Your task to perform on an android device: uninstall "Firefox Browser" Image 0: 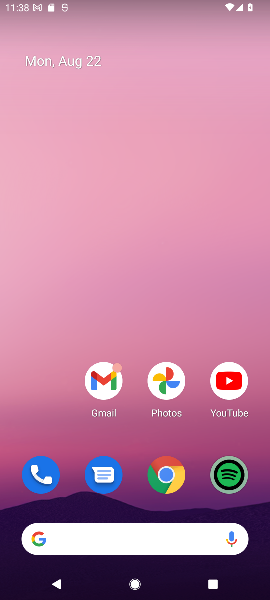
Step 0: drag from (138, 474) to (84, 13)
Your task to perform on an android device: uninstall "Firefox Browser" Image 1: 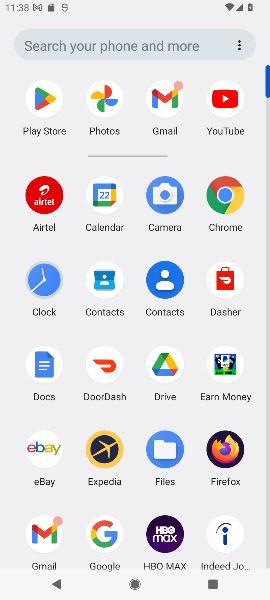
Step 1: click (48, 97)
Your task to perform on an android device: uninstall "Firefox Browser" Image 2: 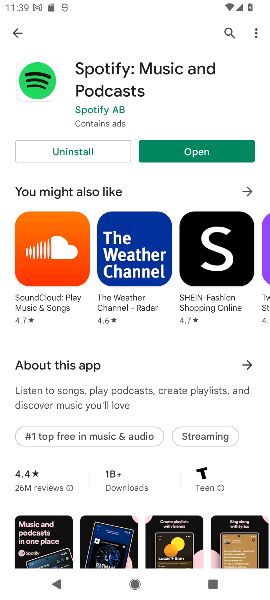
Step 2: click (18, 30)
Your task to perform on an android device: uninstall "Firefox Browser" Image 3: 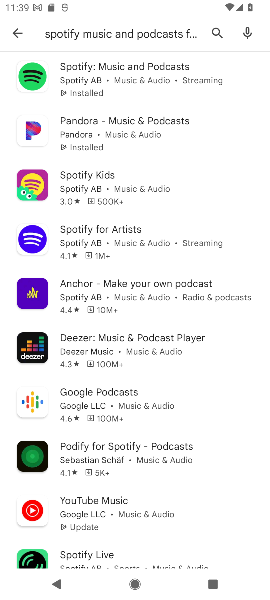
Step 3: click (16, 33)
Your task to perform on an android device: uninstall "Firefox Browser" Image 4: 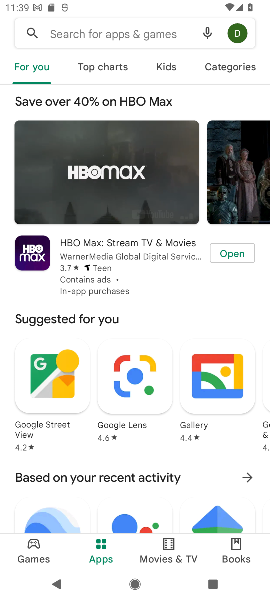
Step 4: click (84, 34)
Your task to perform on an android device: uninstall "Firefox Browser" Image 5: 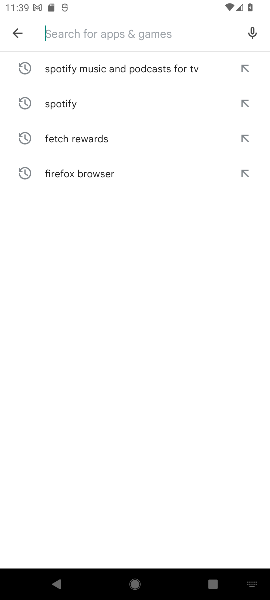
Step 5: type "Firefox Browser"
Your task to perform on an android device: uninstall "Firefox Browser" Image 6: 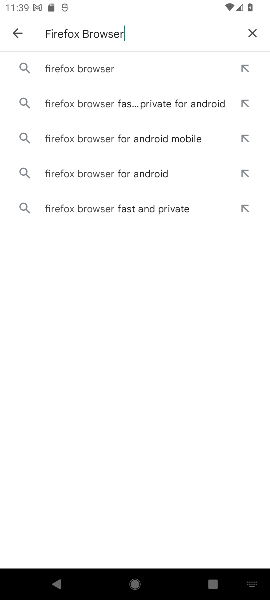
Step 6: click (87, 66)
Your task to perform on an android device: uninstall "Firefox Browser" Image 7: 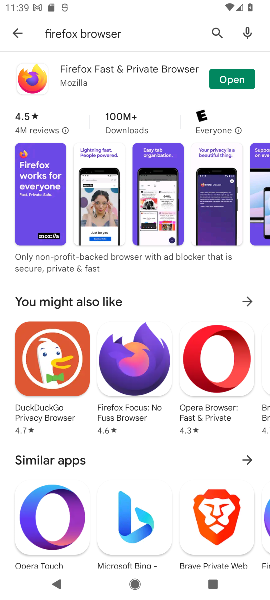
Step 7: click (68, 82)
Your task to perform on an android device: uninstall "Firefox Browser" Image 8: 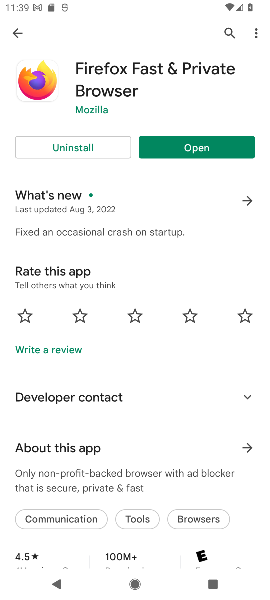
Step 8: click (71, 147)
Your task to perform on an android device: uninstall "Firefox Browser" Image 9: 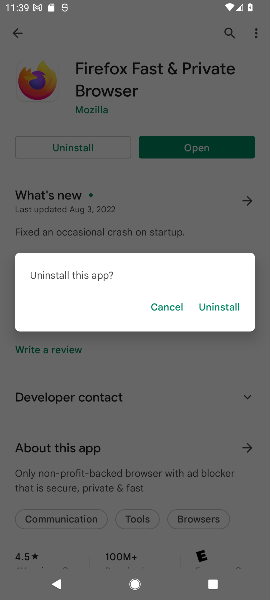
Step 9: click (208, 305)
Your task to perform on an android device: uninstall "Firefox Browser" Image 10: 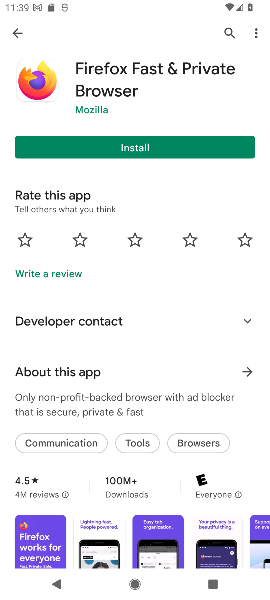
Step 10: task complete